Your task to perform on an android device: Go to sound settings Image 0: 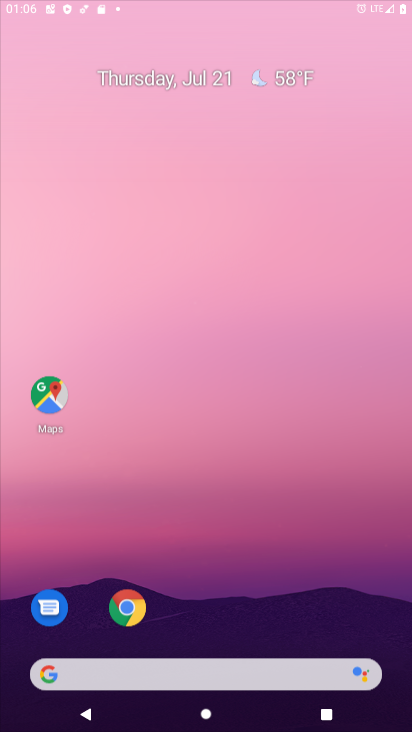
Step 0: press home button
Your task to perform on an android device: Go to sound settings Image 1: 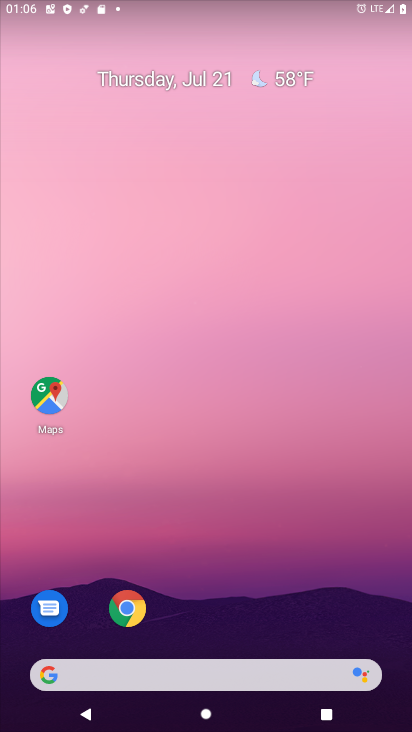
Step 1: drag from (219, 637) to (212, 24)
Your task to perform on an android device: Go to sound settings Image 2: 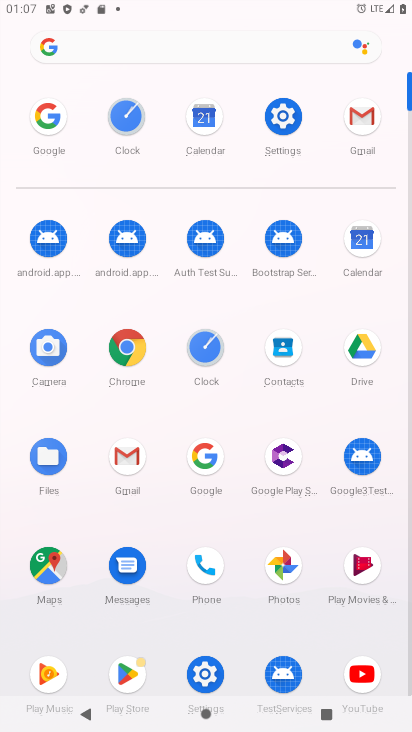
Step 2: click (280, 109)
Your task to perform on an android device: Go to sound settings Image 3: 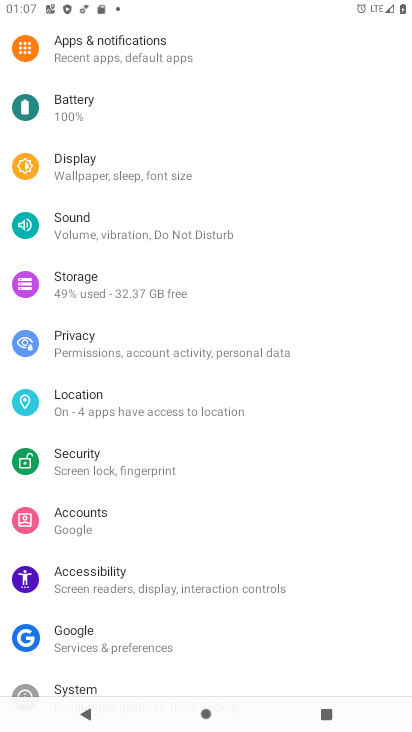
Step 3: click (105, 218)
Your task to perform on an android device: Go to sound settings Image 4: 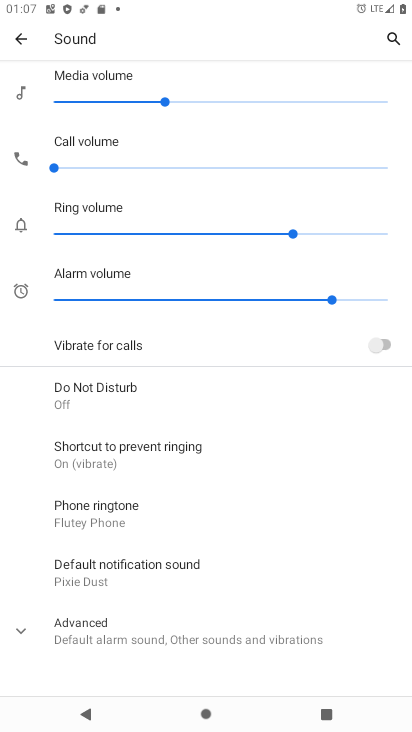
Step 4: click (17, 617)
Your task to perform on an android device: Go to sound settings Image 5: 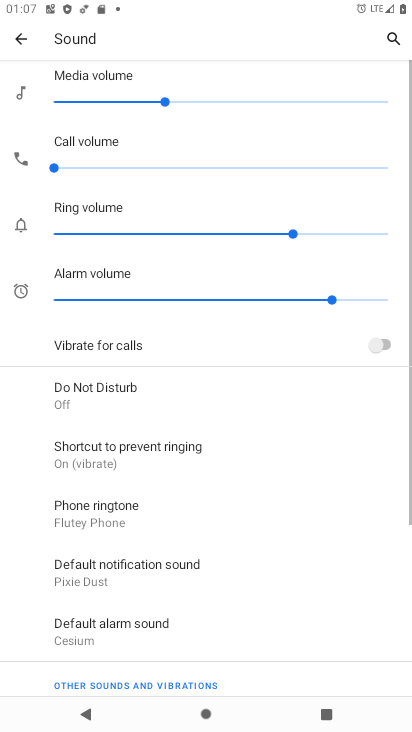
Step 5: task complete